Your task to perform on an android device: change the clock display to show seconds Image 0: 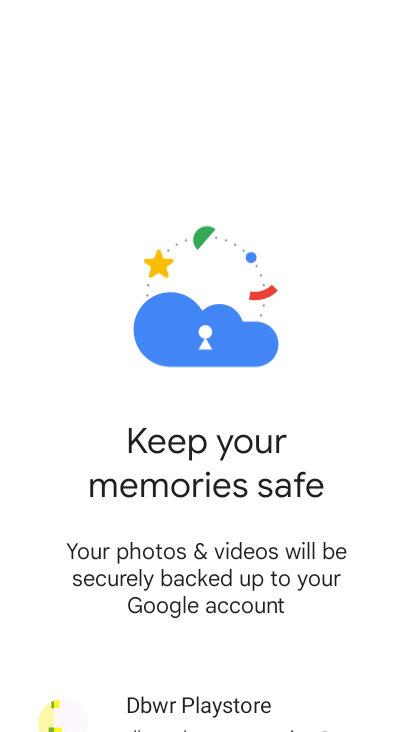
Step 0: press home button
Your task to perform on an android device: change the clock display to show seconds Image 1: 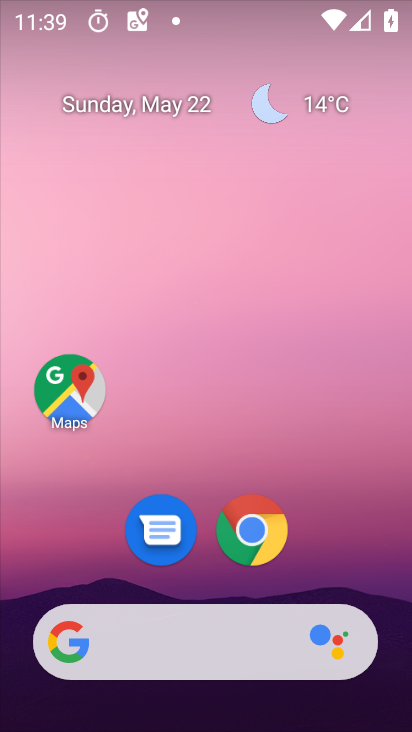
Step 1: drag from (393, 677) to (286, 117)
Your task to perform on an android device: change the clock display to show seconds Image 2: 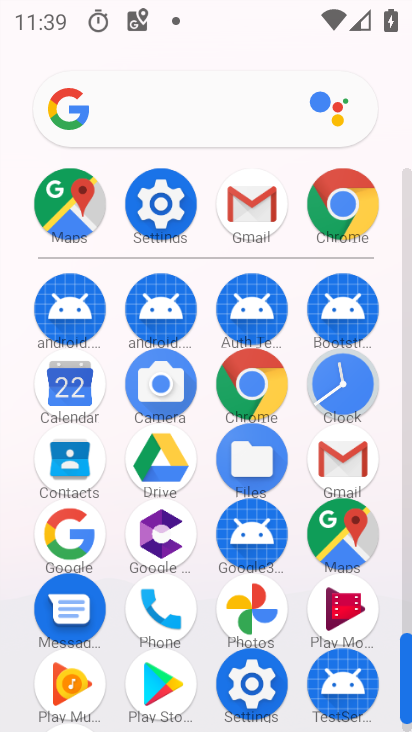
Step 2: click (322, 364)
Your task to perform on an android device: change the clock display to show seconds Image 3: 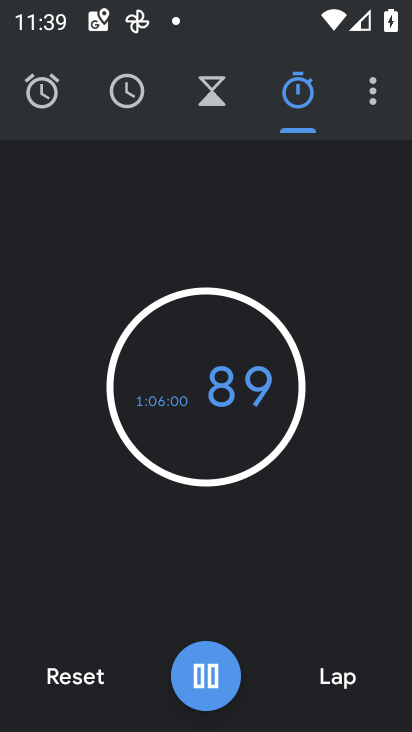
Step 3: click (378, 88)
Your task to perform on an android device: change the clock display to show seconds Image 4: 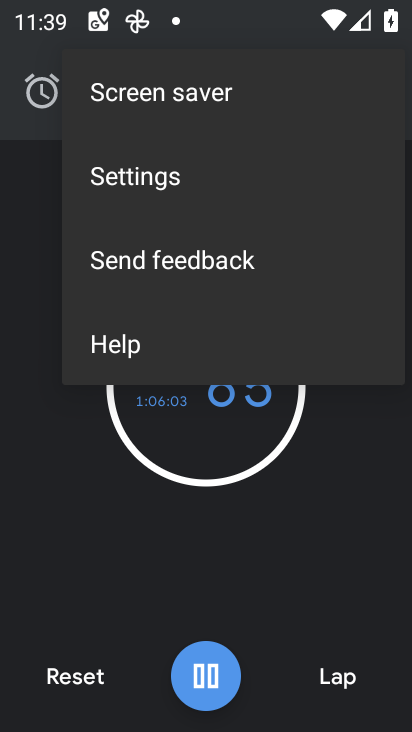
Step 4: click (111, 175)
Your task to perform on an android device: change the clock display to show seconds Image 5: 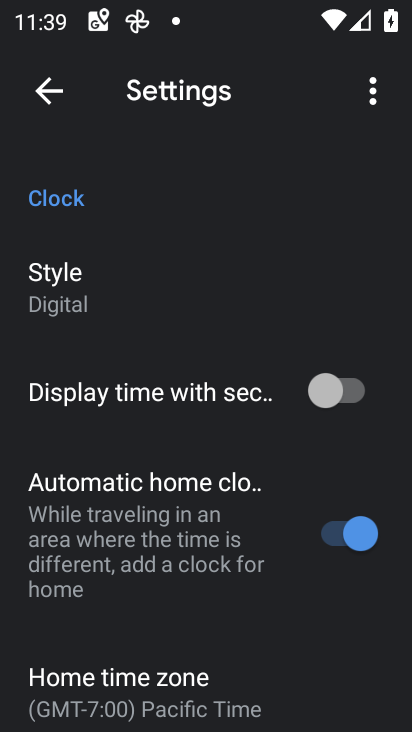
Step 5: click (353, 396)
Your task to perform on an android device: change the clock display to show seconds Image 6: 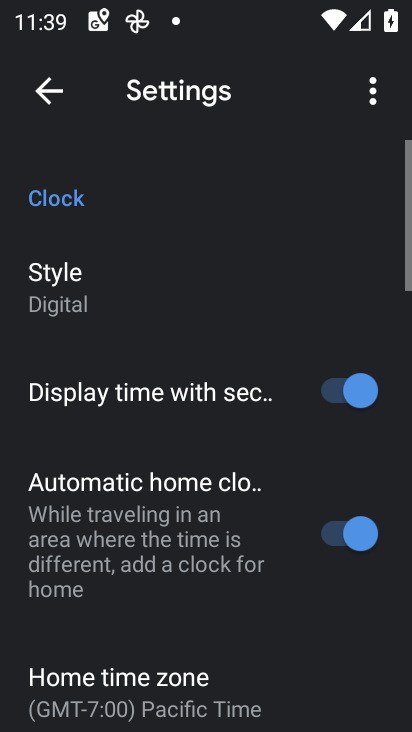
Step 6: task complete